Your task to perform on an android device: Open Google Chrome Image 0: 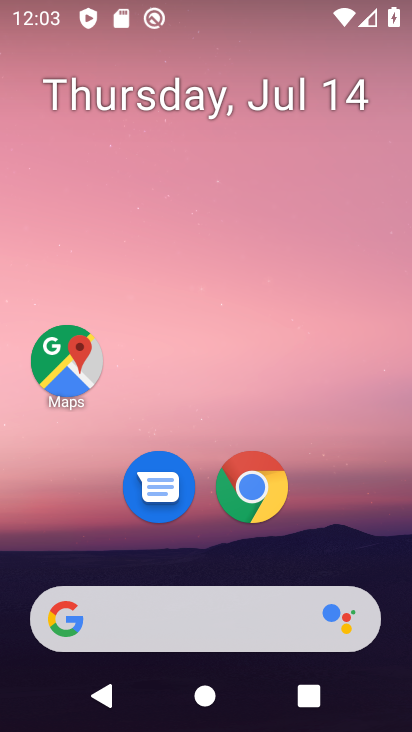
Step 0: drag from (184, 642) to (195, 279)
Your task to perform on an android device: Open Google Chrome Image 1: 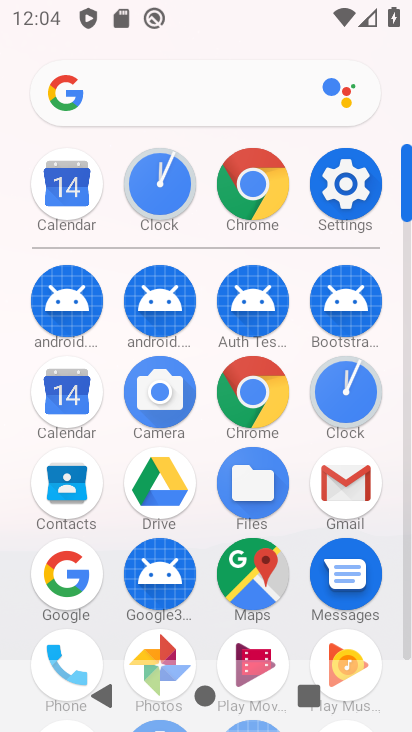
Step 1: click (256, 212)
Your task to perform on an android device: Open Google Chrome Image 2: 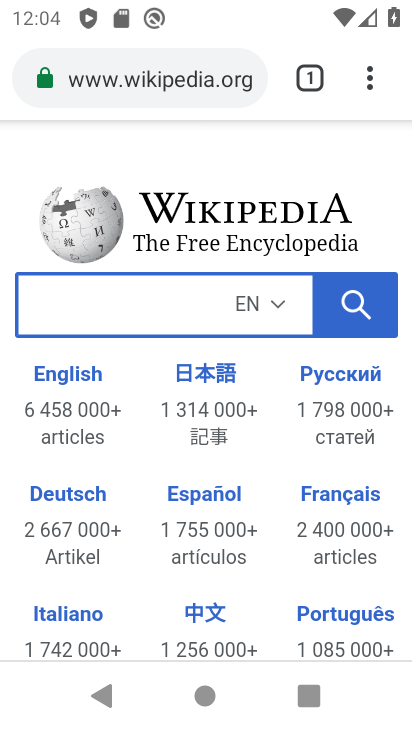
Step 2: task complete